Your task to perform on an android device: set default search engine in the chrome app Image 0: 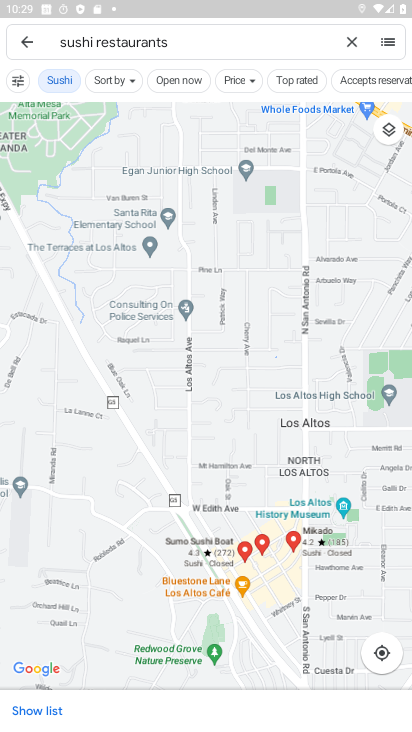
Step 0: press home button
Your task to perform on an android device: set default search engine in the chrome app Image 1: 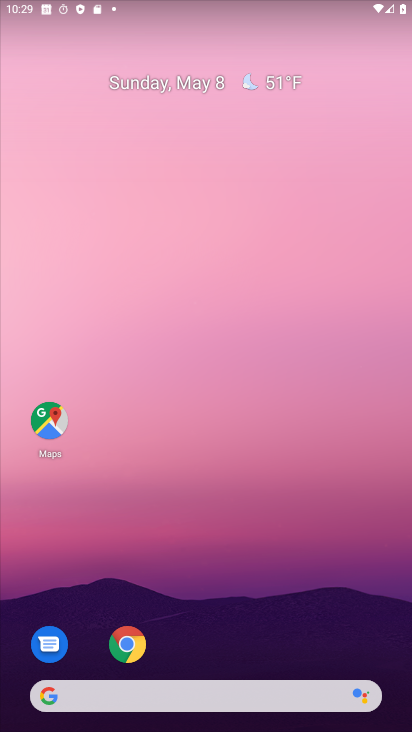
Step 1: drag from (223, 648) to (345, 188)
Your task to perform on an android device: set default search engine in the chrome app Image 2: 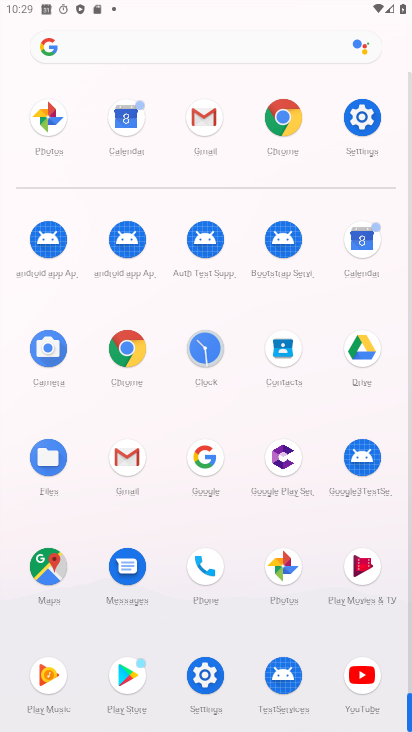
Step 2: click (128, 341)
Your task to perform on an android device: set default search engine in the chrome app Image 3: 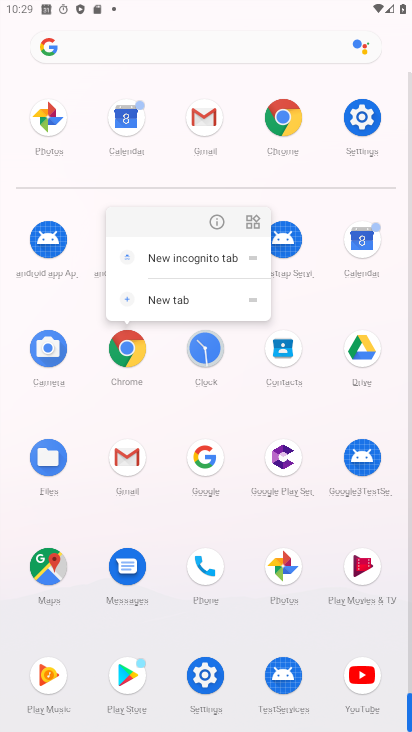
Step 3: click (218, 221)
Your task to perform on an android device: set default search engine in the chrome app Image 4: 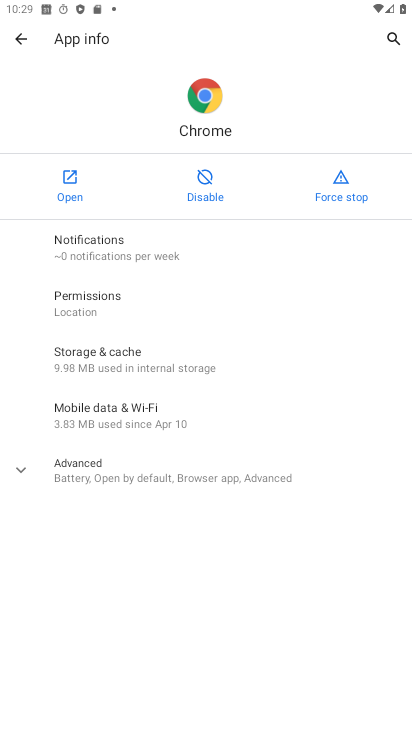
Step 4: click (76, 173)
Your task to perform on an android device: set default search engine in the chrome app Image 5: 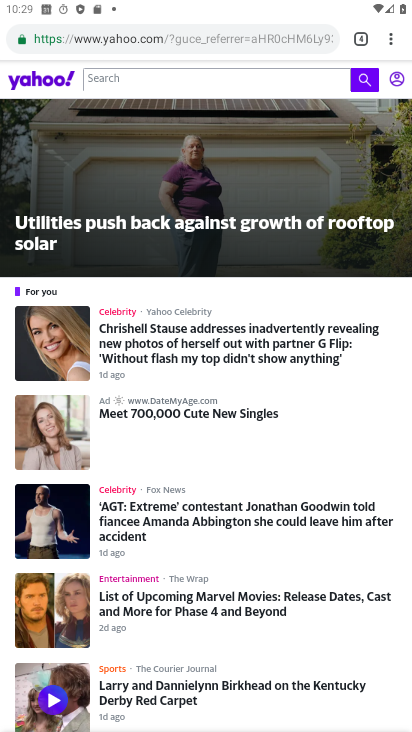
Step 5: drag from (390, 33) to (287, 481)
Your task to perform on an android device: set default search engine in the chrome app Image 6: 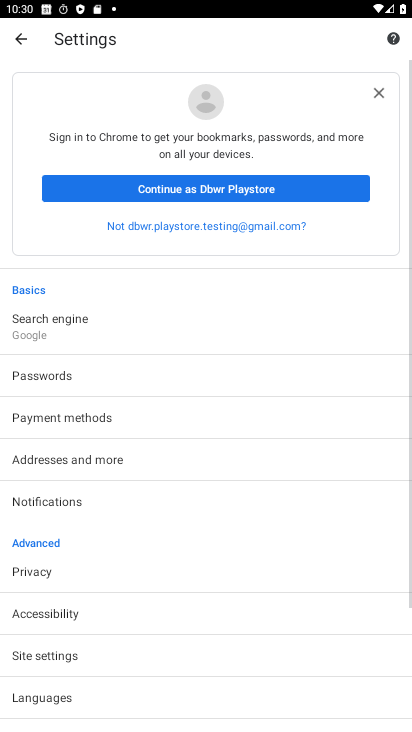
Step 6: click (84, 326)
Your task to perform on an android device: set default search engine in the chrome app Image 7: 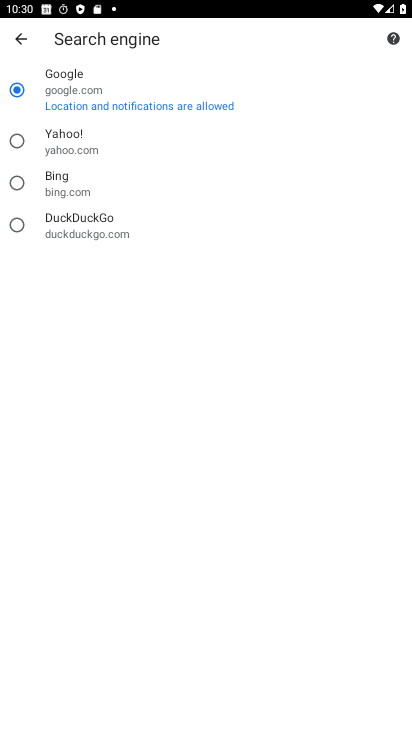
Step 7: task complete